Your task to perform on an android device: Open battery settings Image 0: 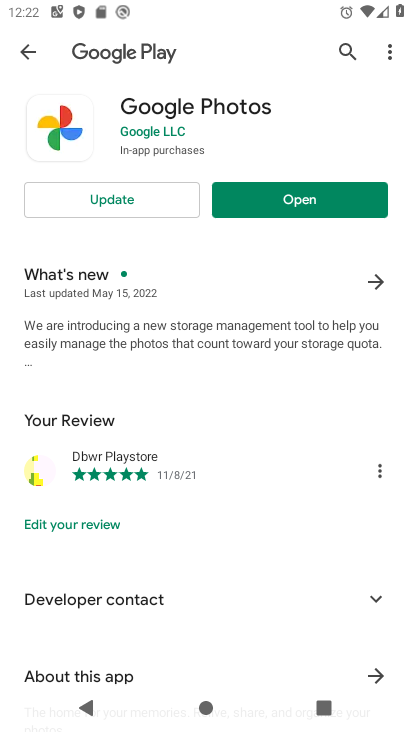
Step 0: press home button
Your task to perform on an android device: Open battery settings Image 1: 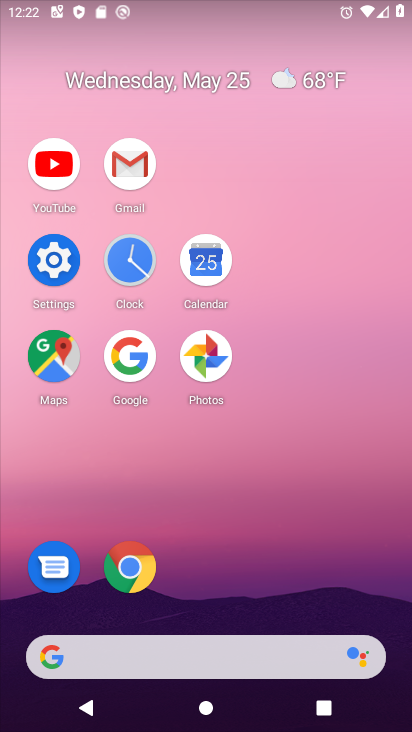
Step 1: click (59, 264)
Your task to perform on an android device: Open battery settings Image 2: 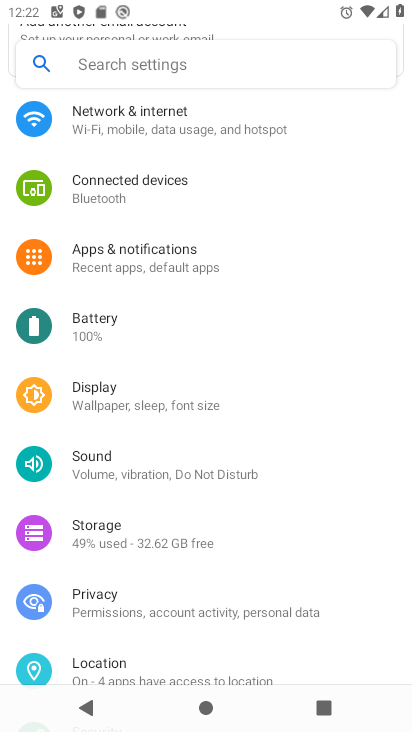
Step 2: click (175, 307)
Your task to perform on an android device: Open battery settings Image 3: 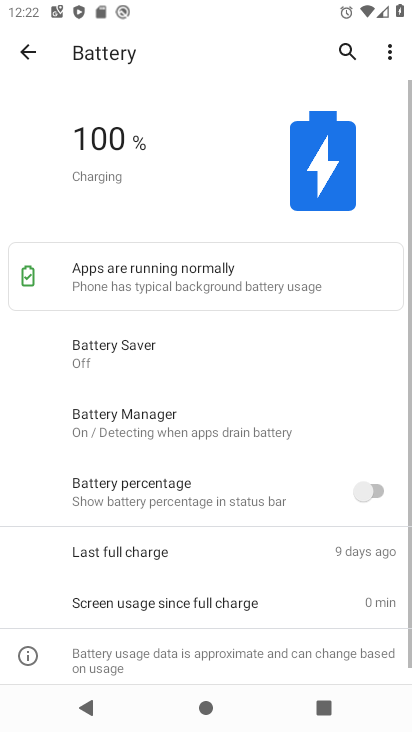
Step 3: task complete